Your task to perform on an android device: Go to display settings Image 0: 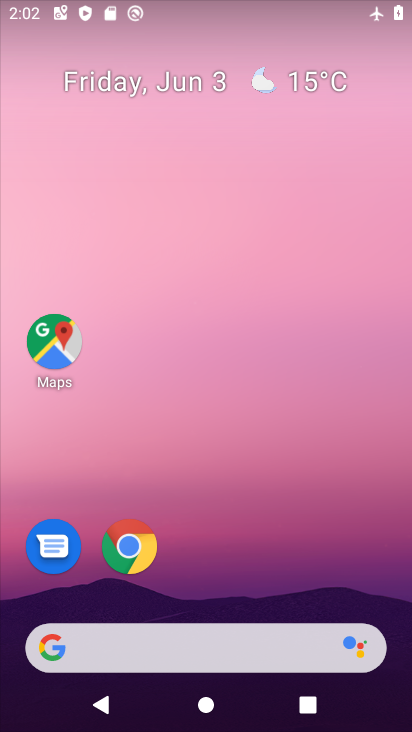
Step 0: drag from (316, 584) to (241, 20)
Your task to perform on an android device: Go to display settings Image 1: 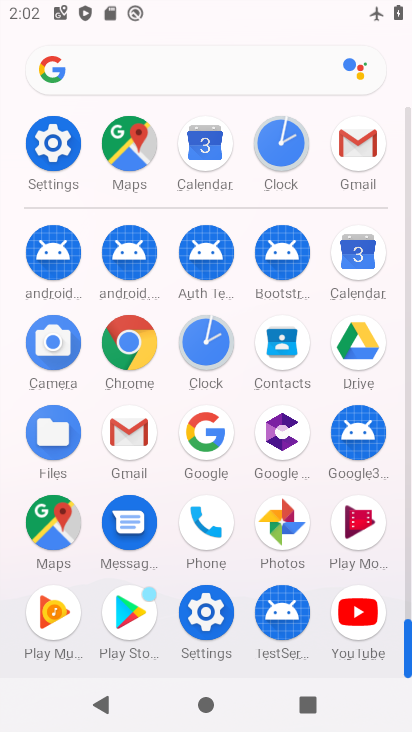
Step 1: click (56, 146)
Your task to perform on an android device: Go to display settings Image 2: 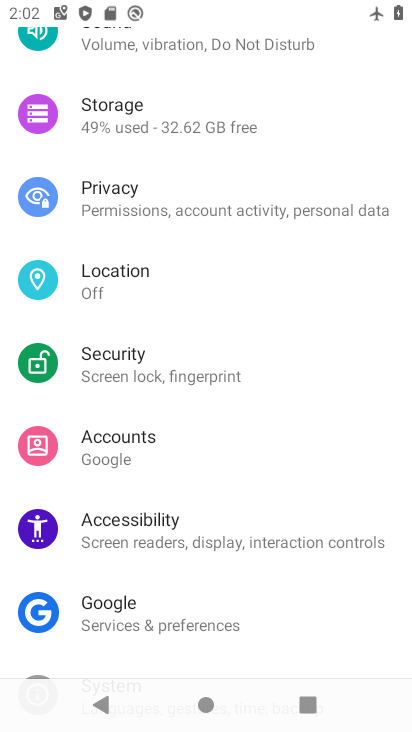
Step 2: drag from (141, 133) to (128, 569)
Your task to perform on an android device: Go to display settings Image 3: 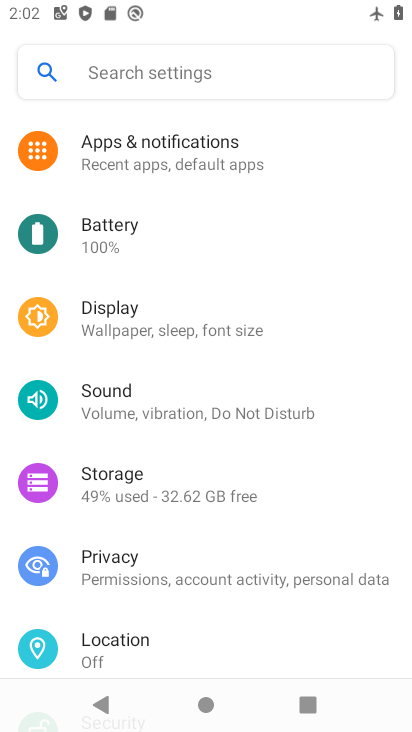
Step 3: drag from (160, 181) to (210, 580)
Your task to perform on an android device: Go to display settings Image 4: 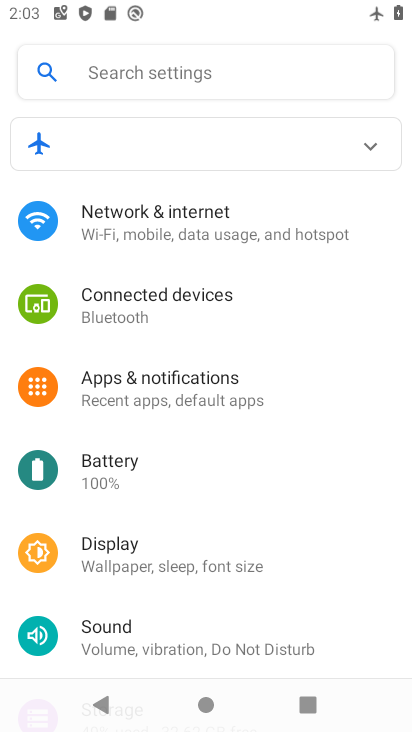
Step 4: click (155, 569)
Your task to perform on an android device: Go to display settings Image 5: 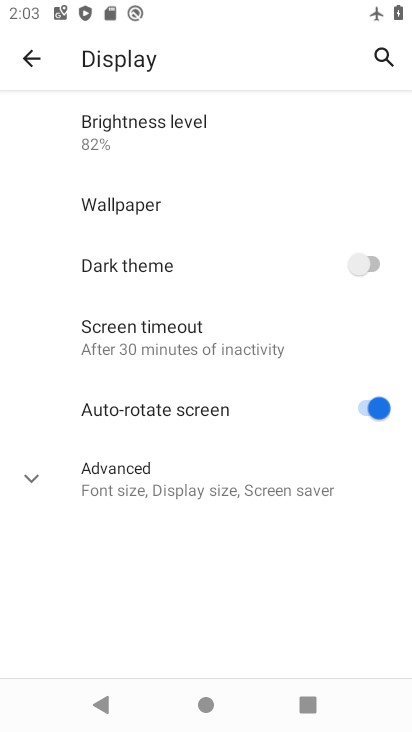
Step 5: task complete